Your task to perform on an android device: empty trash in the gmail app Image 0: 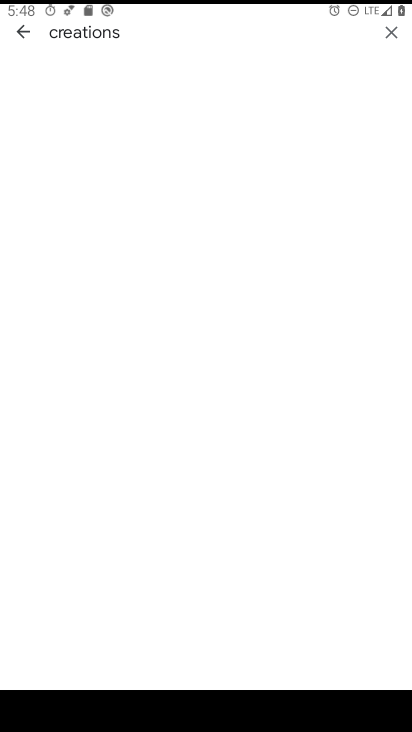
Step 0: press home button
Your task to perform on an android device: empty trash in the gmail app Image 1: 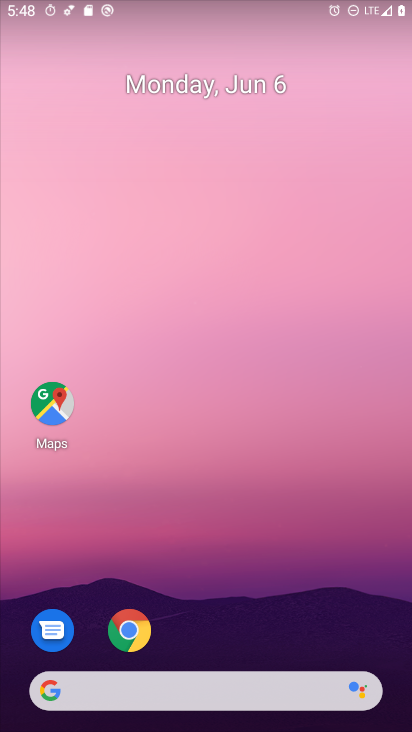
Step 1: drag from (282, 613) to (188, 25)
Your task to perform on an android device: empty trash in the gmail app Image 2: 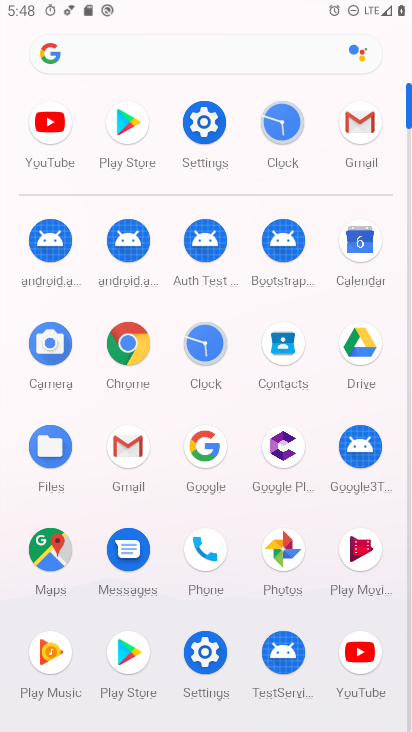
Step 2: click (127, 450)
Your task to perform on an android device: empty trash in the gmail app Image 3: 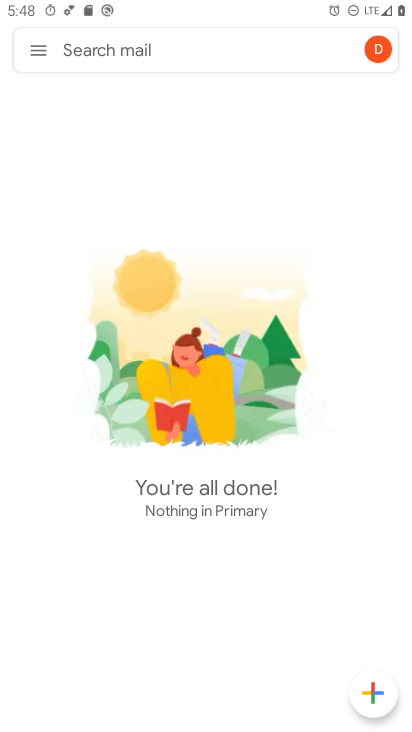
Step 3: click (35, 50)
Your task to perform on an android device: empty trash in the gmail app Image 4: 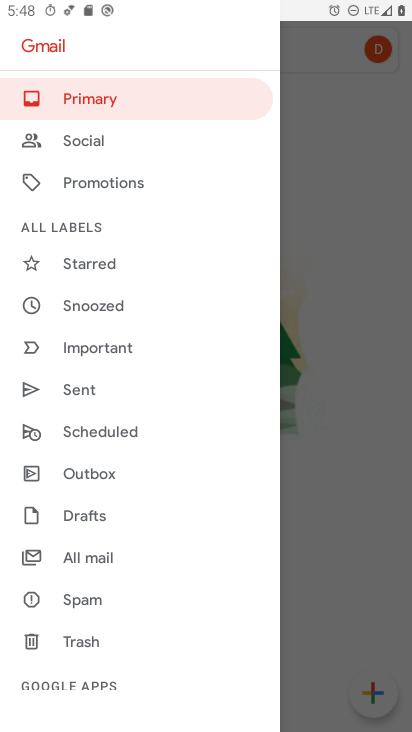
Step 4: click (125, 642)
Your task to perform on an android device: empty trash in the gmail app Image 5: 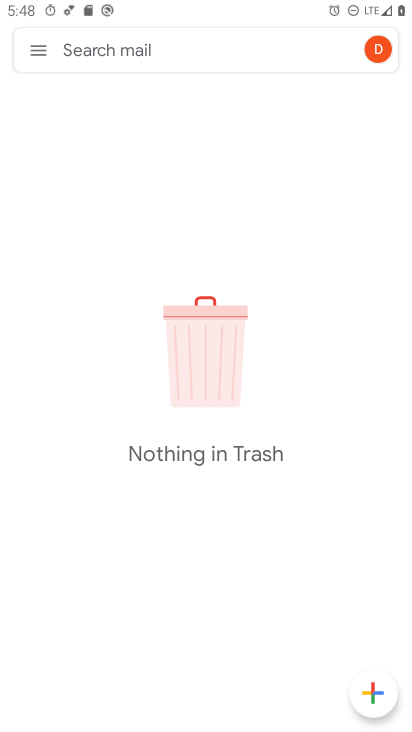
Step 5: task complete